Your task to perform on an android device: turn off javascript in the chrome app Image 0: 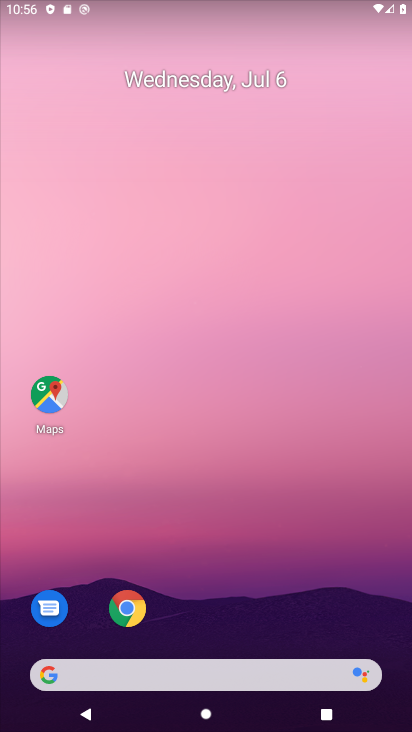
Step 0: drag from (231, 642) to (191, 91)
Your task to perform on an android device: turn off javascript in the chrome app Image 1: 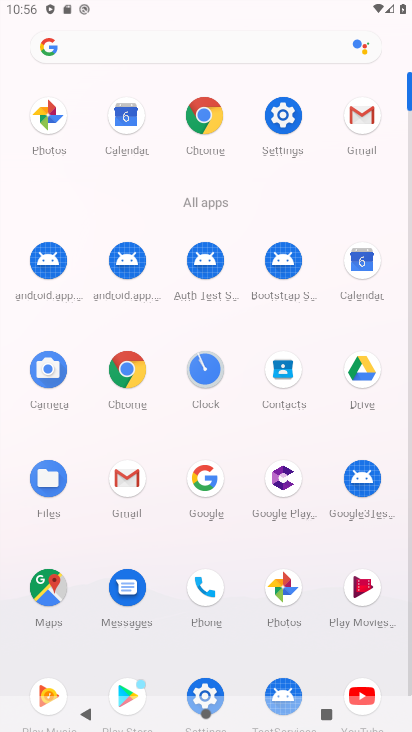
Step 1: click (136, 375)
Your task to perform on an android device: turn off javascript in the chrome app Image 2: 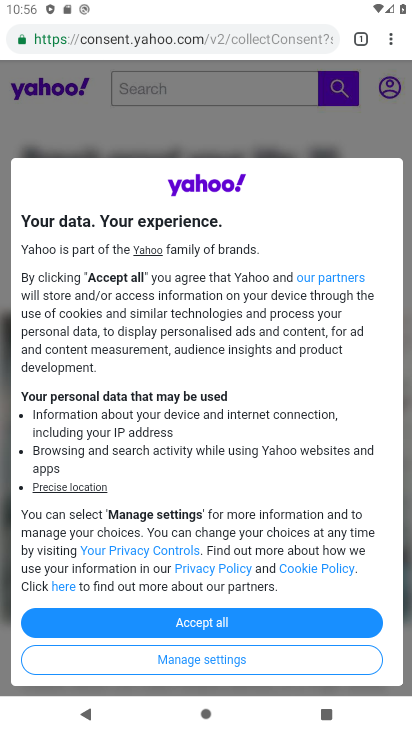
Step 2: task complete